Your task to perform on an android device: Is it going to rain this weekend? Image 0: 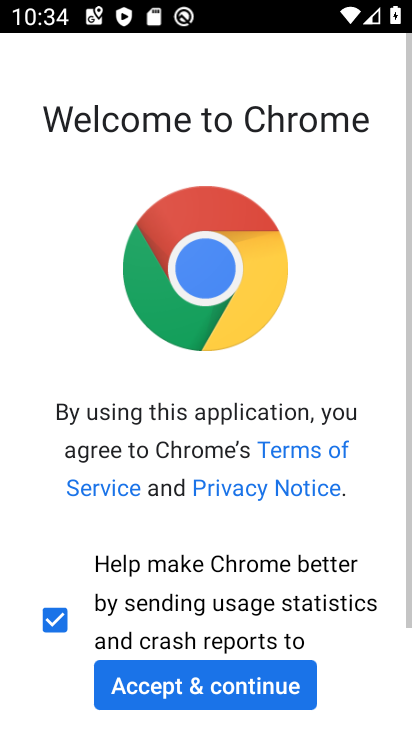
Step 0: press back button
Your task to perform on an android device: Is it going to rain this weekend? Image 1: 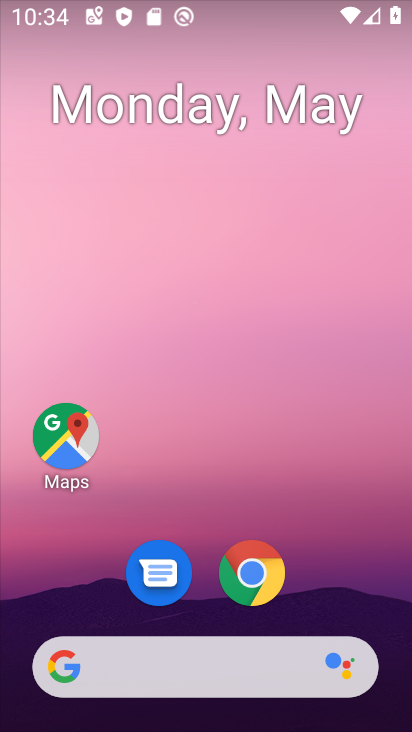
Step 1: drag from (202, 660) to (282, 145)
Your task to perform on an android device: Is it going to rain this weekend? Image 2: 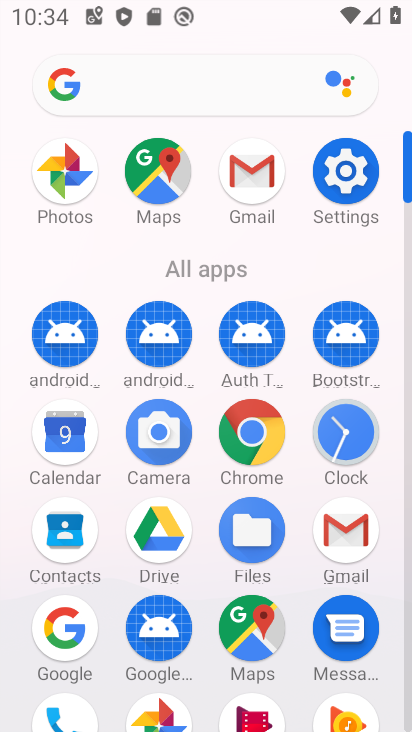
Step 2: click (141, 85)
Your task to perform on an android device: Is it going to rain this weekend? Image 3: 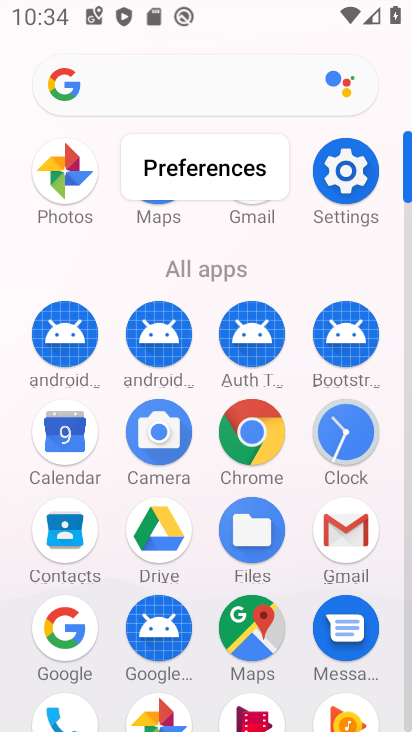
Step 3: click (141, 87)
Your task to perform on an android device: Is it going to rain this weekend? Image 4: 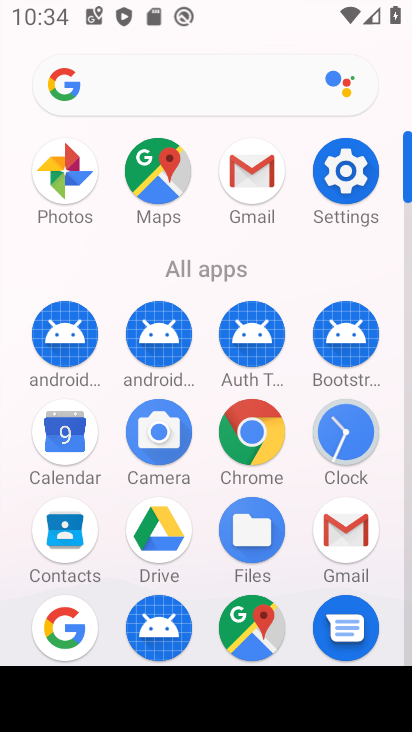
Step 4: click (138, 87)
Your task to perform on an android device: Is it going to rain this weekend? Image 5: 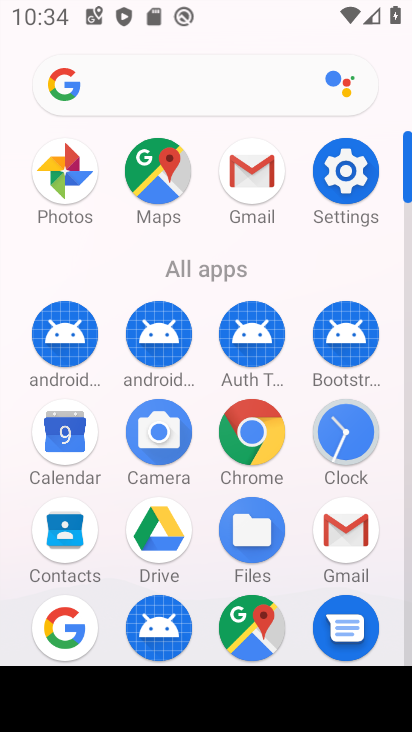
Step 5: type "weather"
Your task to perform on an android device: Is it going to rain this weekend? Image 6: 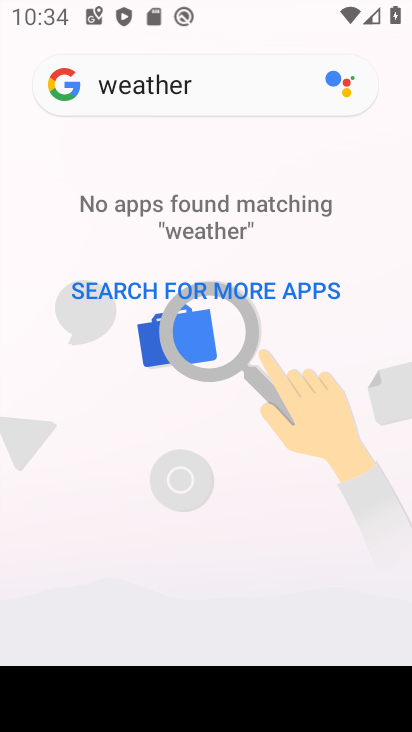
Step 6: press back button
Your task to perform on an android device: Is it going to rain this weekend? Image 7: 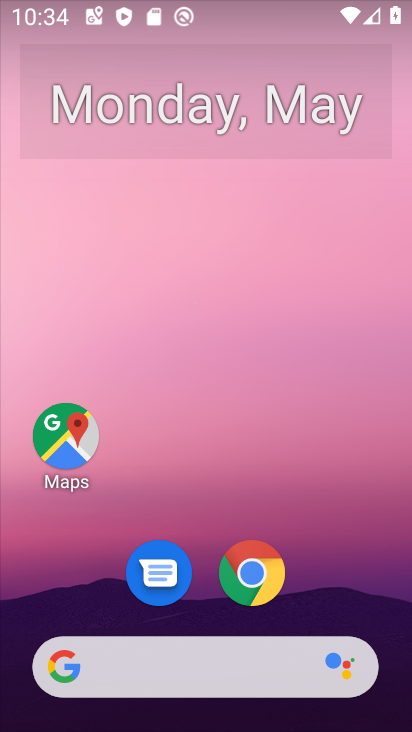
Step 7: click (142, 669)
Your task to perform on an android device: Is it going to rain this weekend? Image 8: 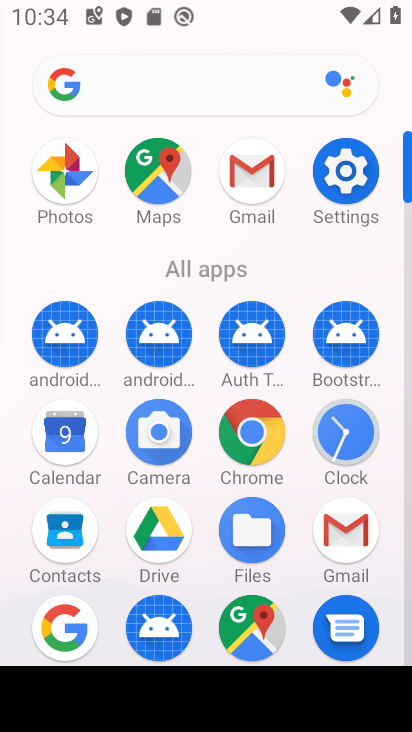
Step 8: click (64, 60)
Your task to perform on an android device: Is it going to rain this weekend? Image 9: 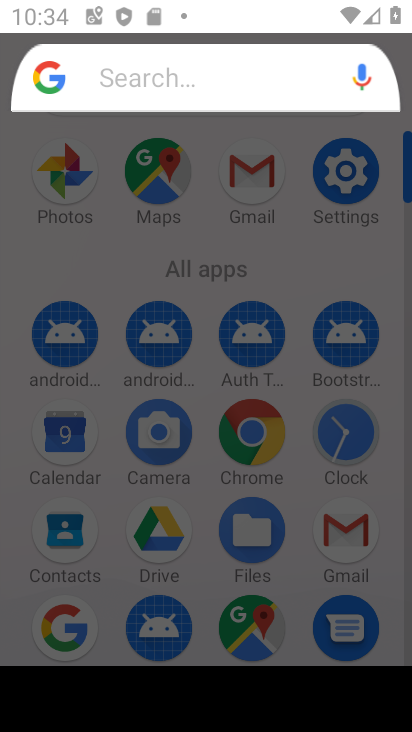
Step 9: click (53, 79)
Your task to perform on an android device: Is it going to rain this weekend? Image 10: 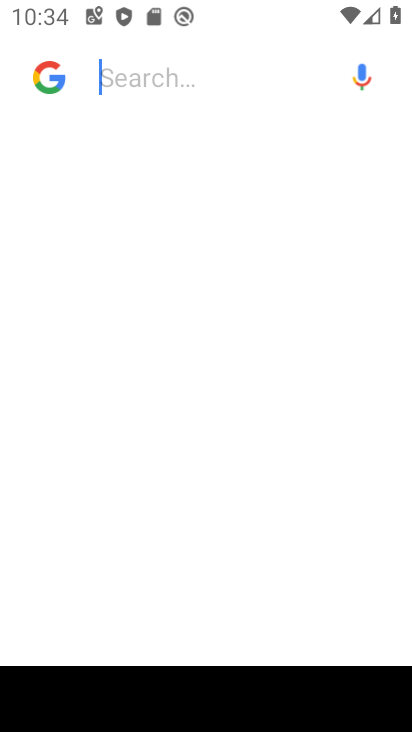
Step 10: click (210, 78)
Your task to perform on an android device: Is it going to rain this weekend? Image 11: 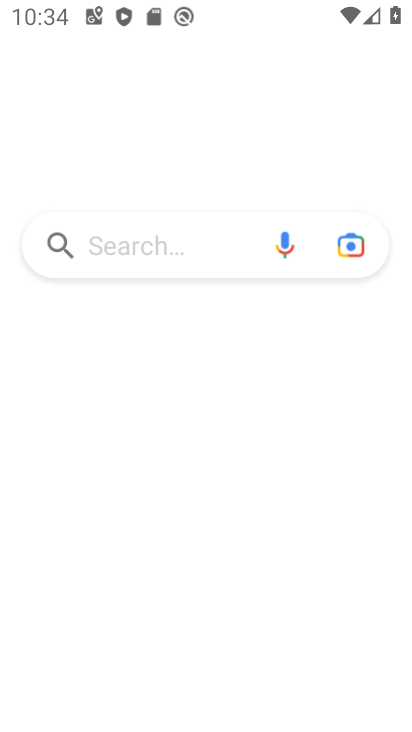
Step 11: click (126, 259)
Your task to perform on an android device: Is it going to rain this weekend? Image 12: 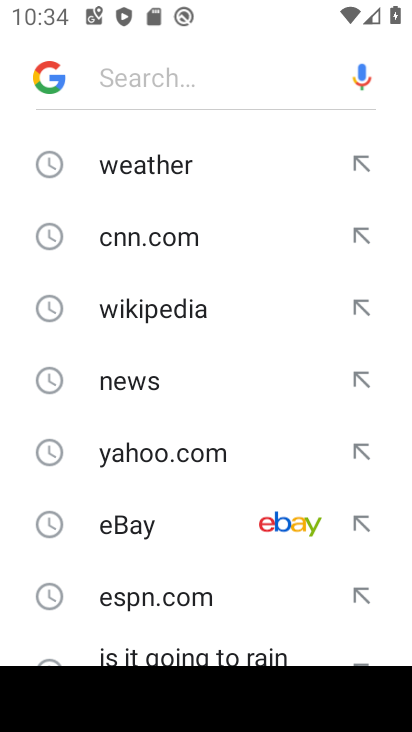
Step 12: click (166, 177)
Your task to perform on an android device: Is it going to rain this weekend? Image 13: 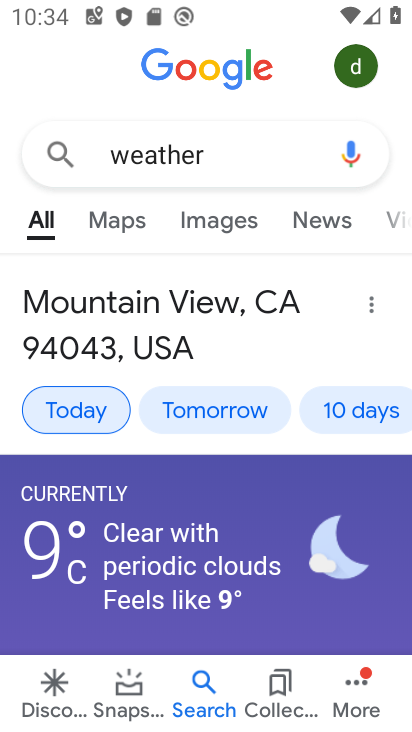
Step 13: click (353, 419)
Your task to perform on an android device: Is it going to rain this weekend? Image 14: 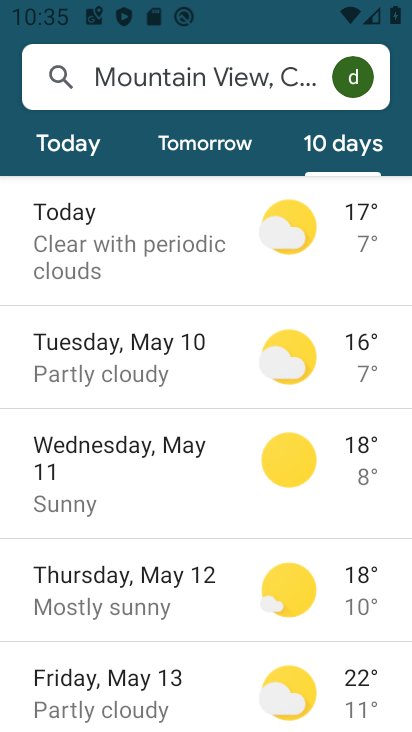
Step 14: task complete